Your task to perform on an android device: Go to settings Image 0: 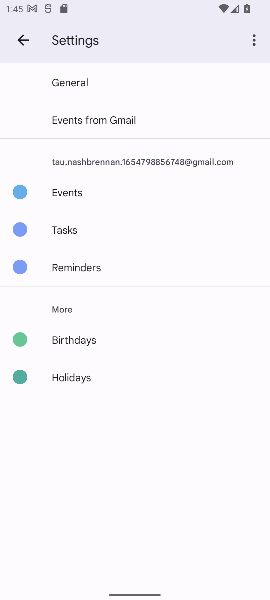
Step 0: press home button
Your task to perform on an android device: Go to settings Image 1: 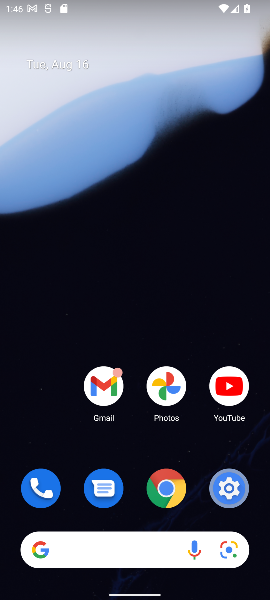
Step 1: click (226, 492)
Your task to perform on an android device: Go to settings Image 2: 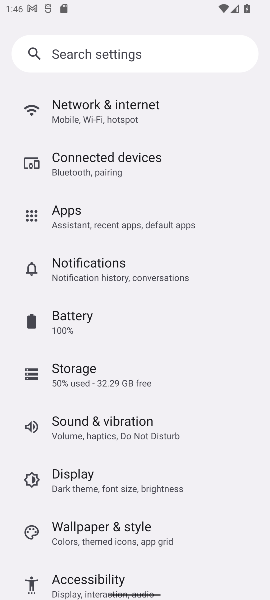
Step 2: task complete